Your task to perform on an android device: Show me productivity apps on the Play Store Image 0: 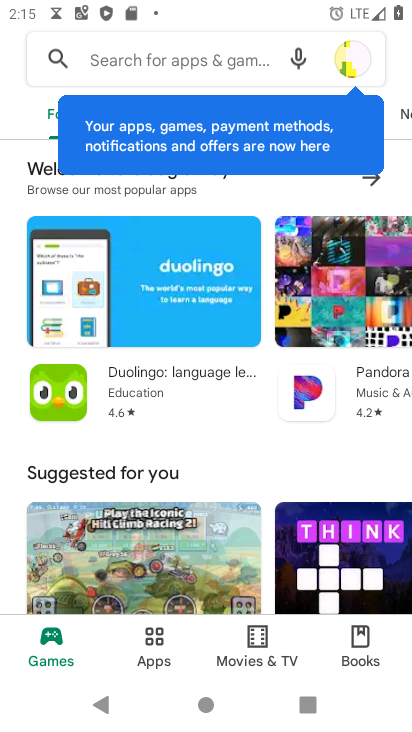
Step 0: click (170, 652)
Your task to perform on an android device: Show me productivity apps on the Play Store Image 1: 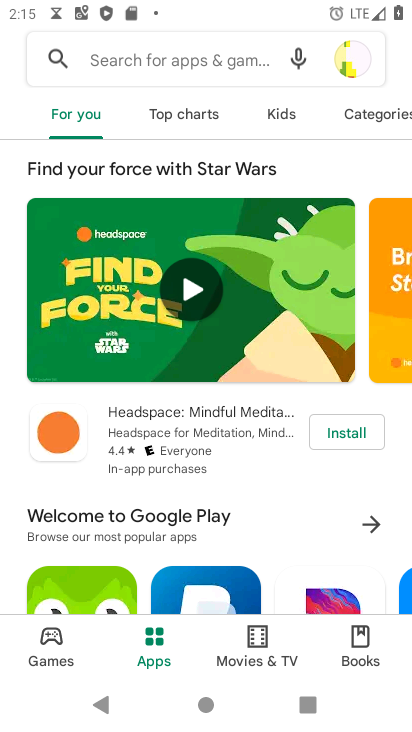
Step 1: task complete